Your task to perform on an android device: Open Maps and search for coffee Image 0: 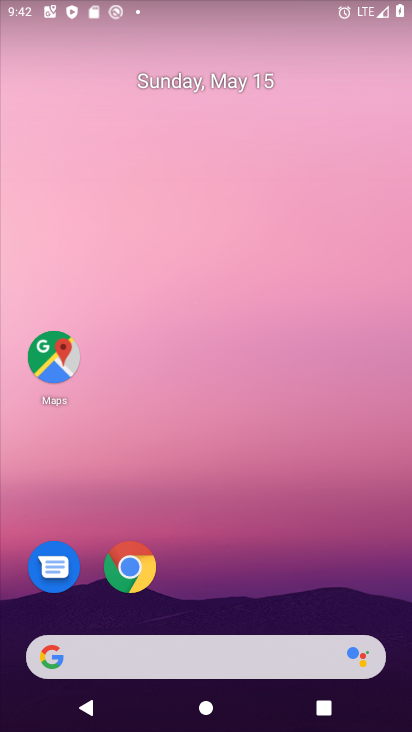
Step 0: click (42, 379)
Your task to perform on an android device: Open Maps and search for coffee Image 1: 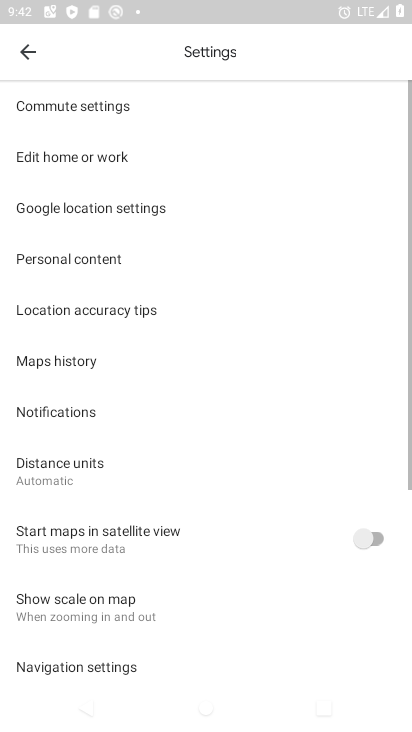
Step 1: click (23, 51)
Your task to perform on an android device: Open Maps and search for coffee Image 2: 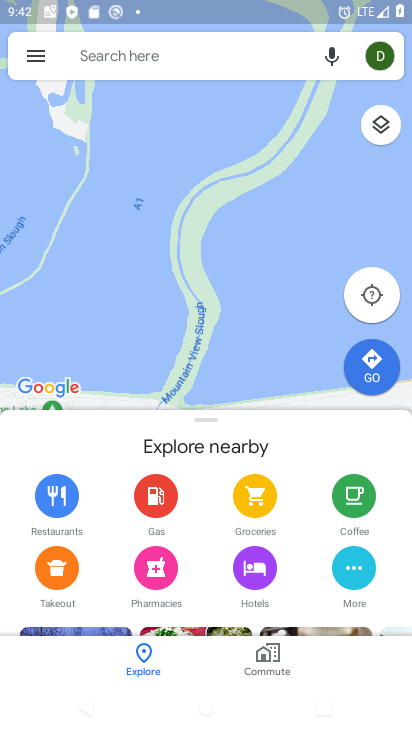
Step 2: click (118, 48)
Your task to perform on an android device: Open Maps and search for coffee Image 3: 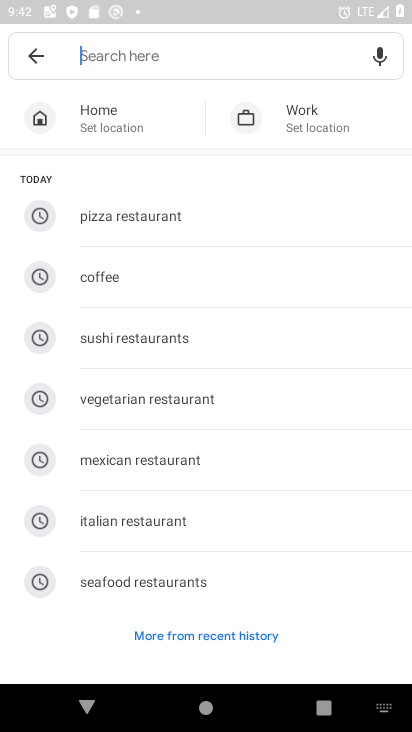
Step 3: click (105, 283)
Your task to perform on an android device: Open Maps and search for coffee Image 4: 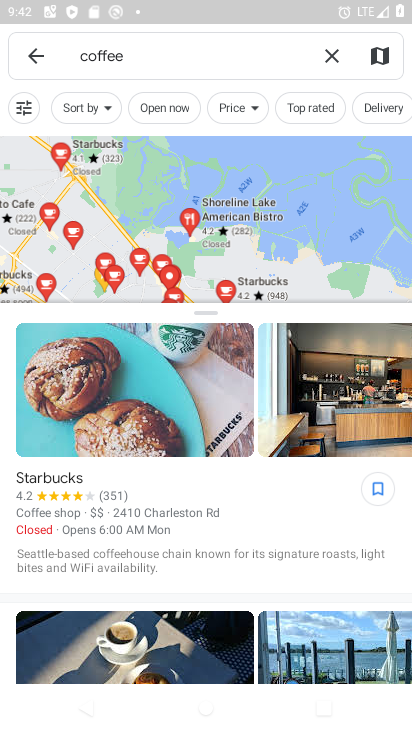
Step 4: task complete